Your task to perform on an android device: Search for the best books on Goodreads Image 0: 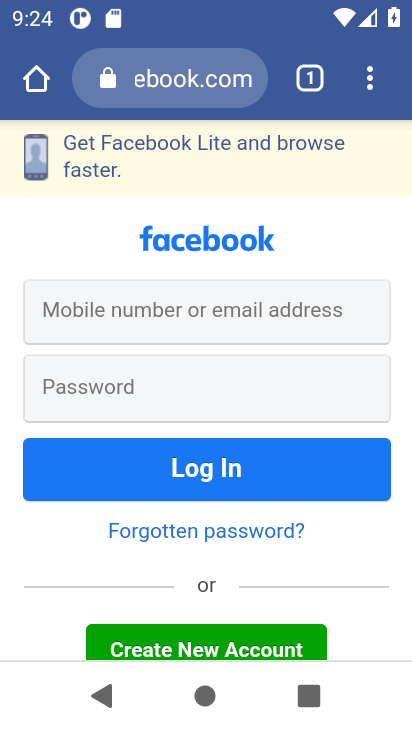
Step 0: task complete